Your task to perform on an android device: Go to Reddit.com Image 0: 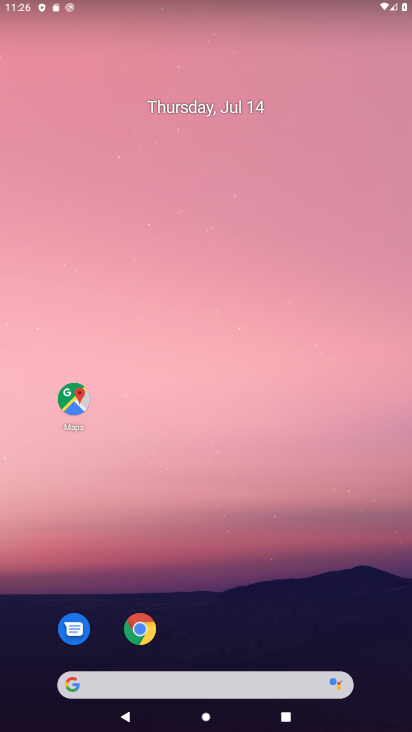
Step 0: drag from (228, 621) to (266, 135)
Your task to perform on an android device: Go to Reddit.com Image 1: 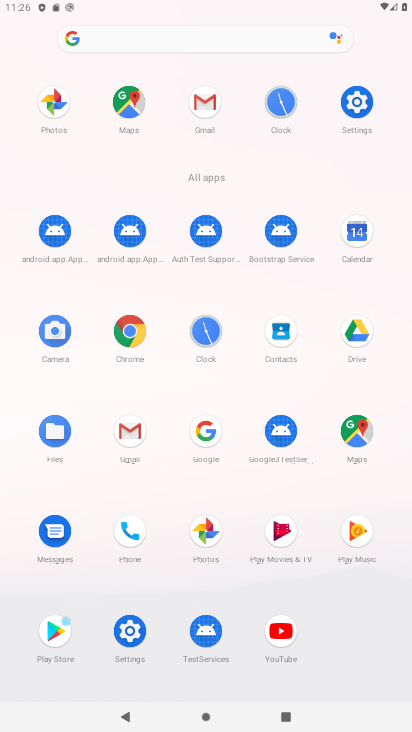
Step 1: click (131, 328)
Your task to perform on an android device: Go to Reddit.com Image 2: 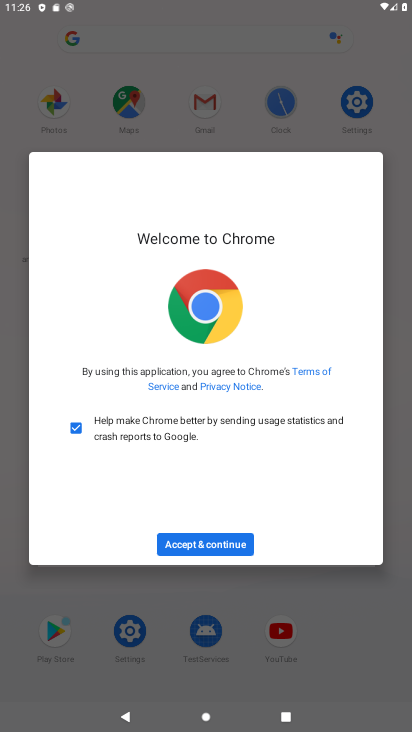
Step 2: click (187, 541)
Your task to perform on an android device: Go to Reddit.com Image 3: 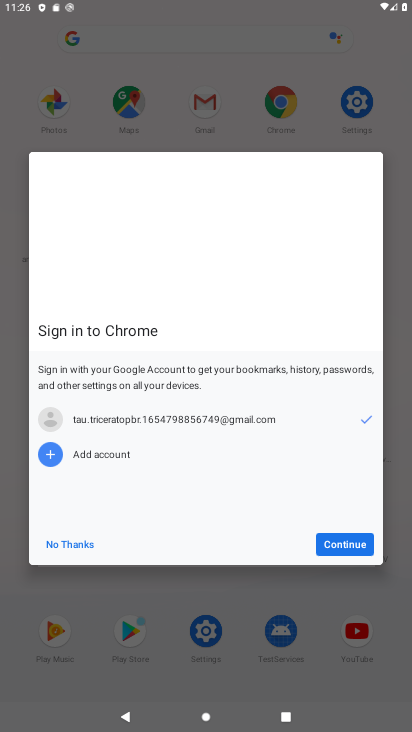
Step 3: click (333, 550)
Your task to perform on an android device: Go to Reddit.com Image 4: 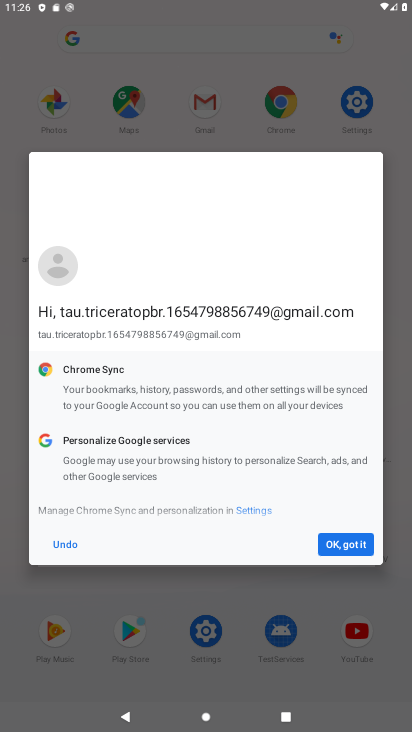
Step 4: click (349, 550)
Your task to perform on an android device: Go to Reddit.com Image 5: 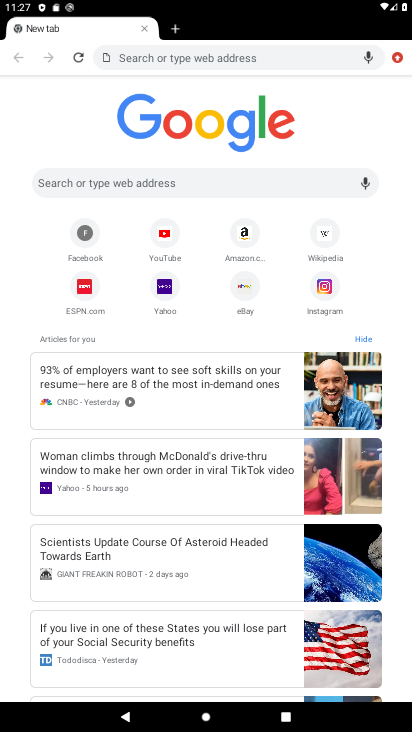
Step 5: type "reddit.com"
Your task to perform on an android device: Go to Reddit.com Image 6: 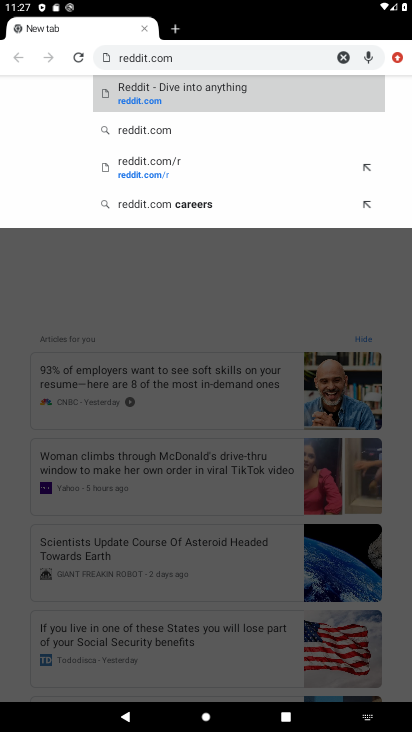
Step 6: click (140, 104)
Your task to perform on an android device: Go to Reddit.com Image 7: 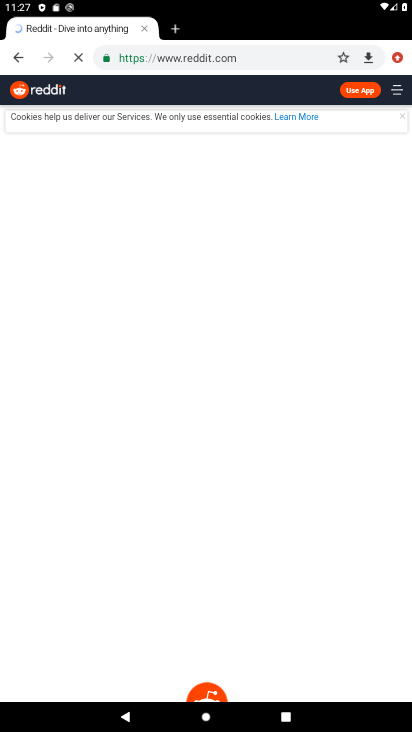
Step 7: task complete